Your task to perform on an android device: What's on my calendar today? Image 0: 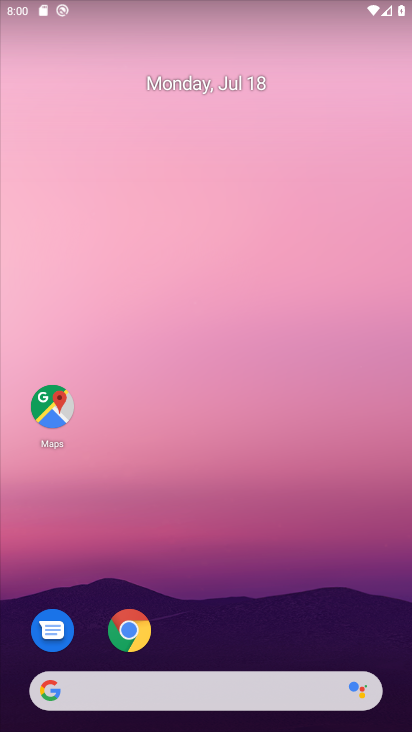
Step 0: drag from (241, 632) to (255, 320)
Your task to perform on an android device: What's on my calendar today? Image 1: 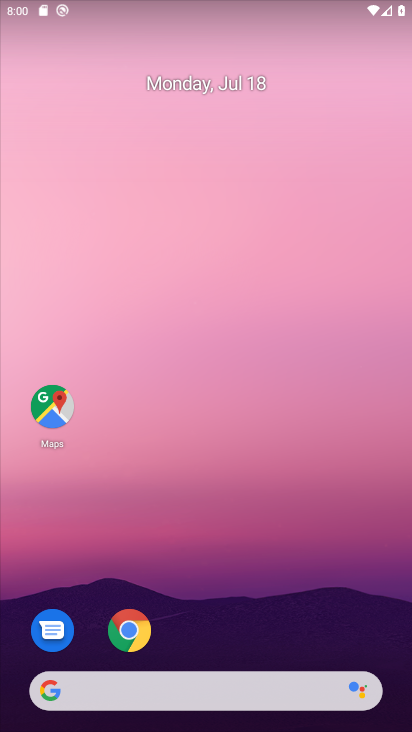
Step 1: drag from (214, 644) to (216, 219)
Your task to perform on an android device: What's on my calendar today? Image 2: 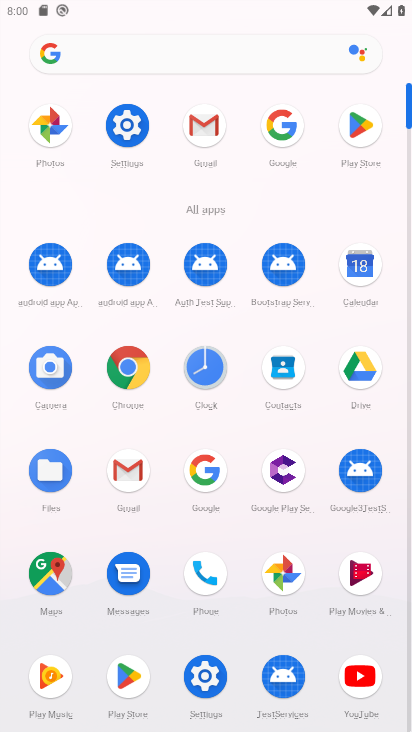
Step 2: click (355, 283)
Your task to perform on an android device: What's on my calendar today? Image 3: 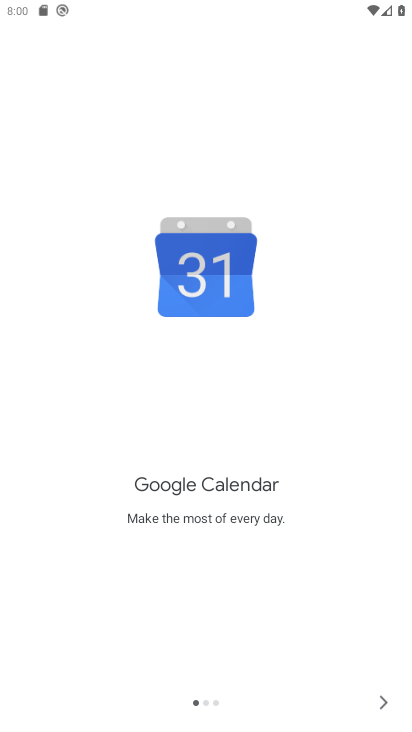
Step 3: click (378, 714)
Your task to perform on an android device: What's on my calendar today? Image 4: 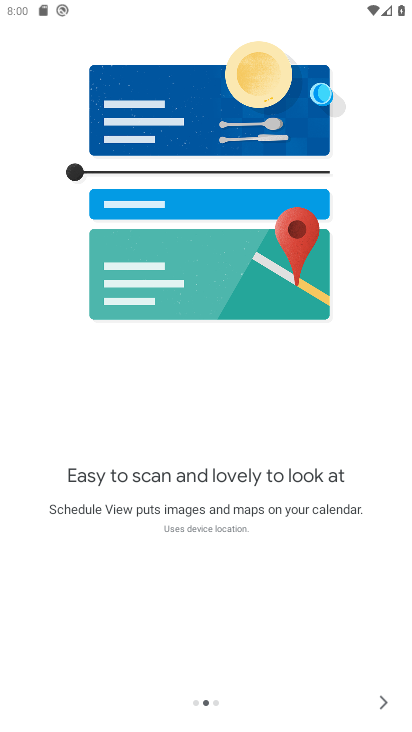
Step 4: click (375, 713)
Your task to perform on an android device: What's on my calendar today? Image 5: 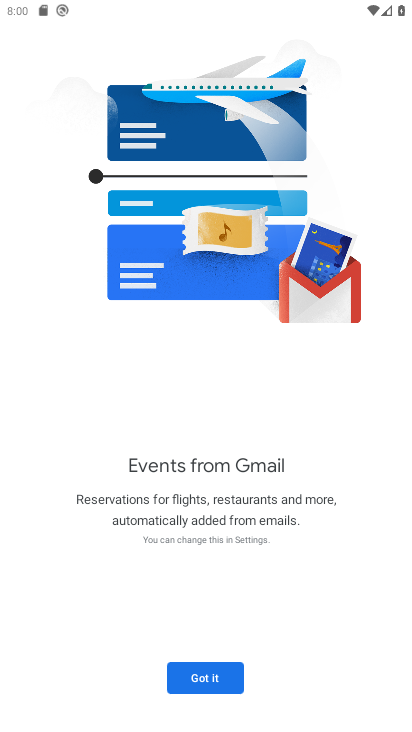
Step 5: click (232, 664)
Your task to perform on an android device: What's on my calendar today? Image 6: 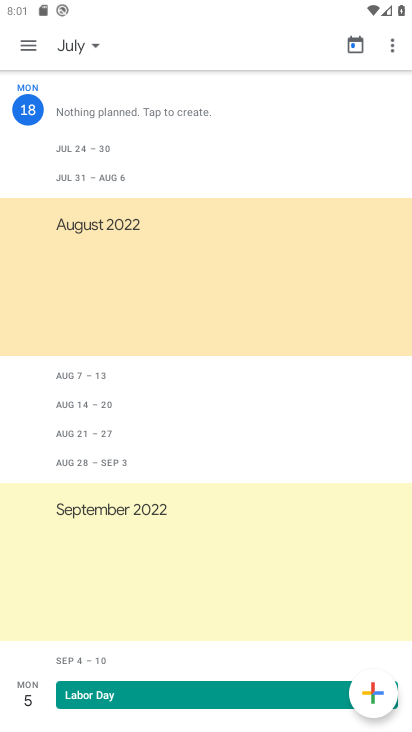
Step 6: click (96, 40)
Your task to perform on an android device: What's on my calendar today? Image 7: 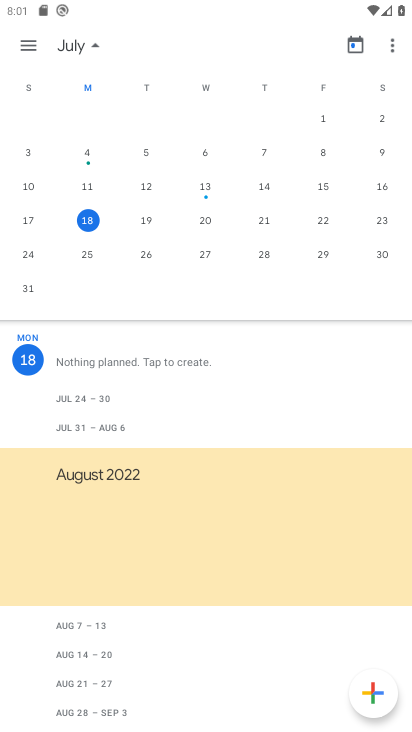
Step 7: click (86, 225)
Your task to perform on an android device: What's on my calendar today? Image 8: 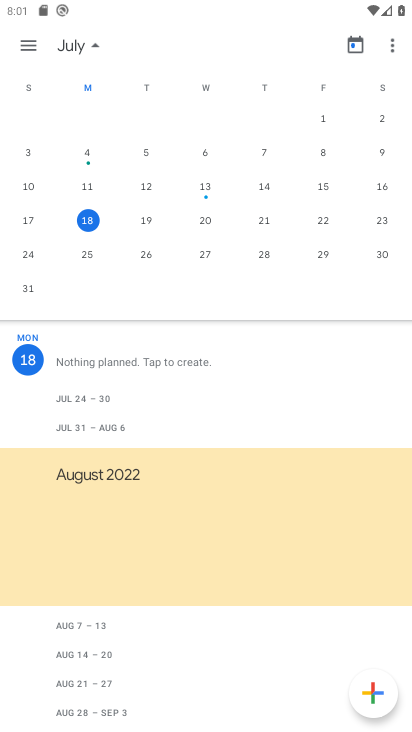
Step 8: task complete